Your task to perform on an android device: Open CNN.com Image 0: 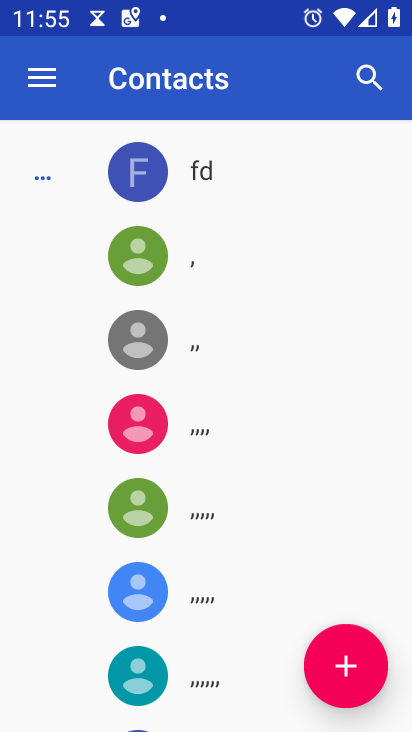
Step 0: press home button
Your task to perform on an android device: Open CNN.com Image 1: 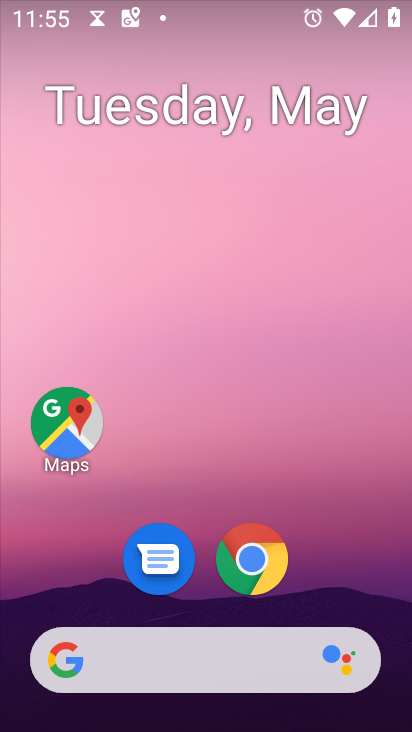
Step 1: click (261, 560)
Your task to perform on an android device: Open CNN.com Image 2: 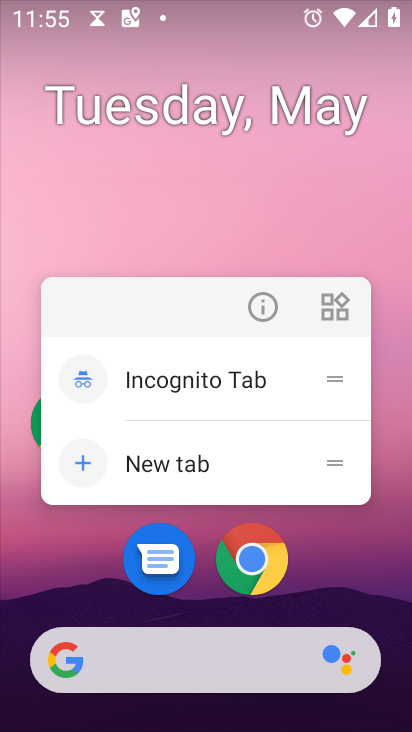
Step 2: click (261, 559)
Your task to perform on an android device: Open CNN.com Image 3: 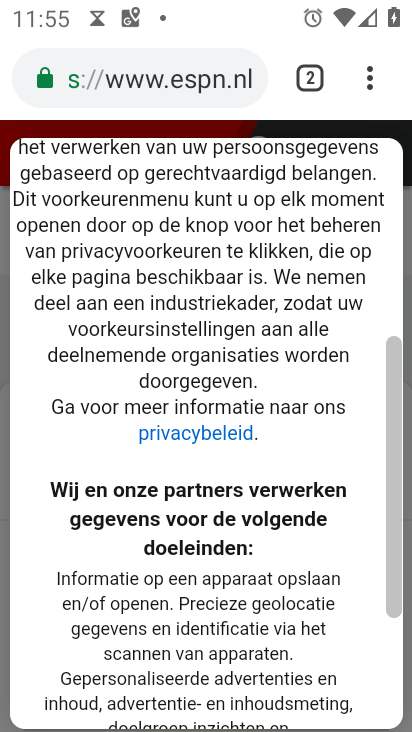
Step 3: click (191, 89)
Your task to perform on an android device: Open CNN.com Image 4: 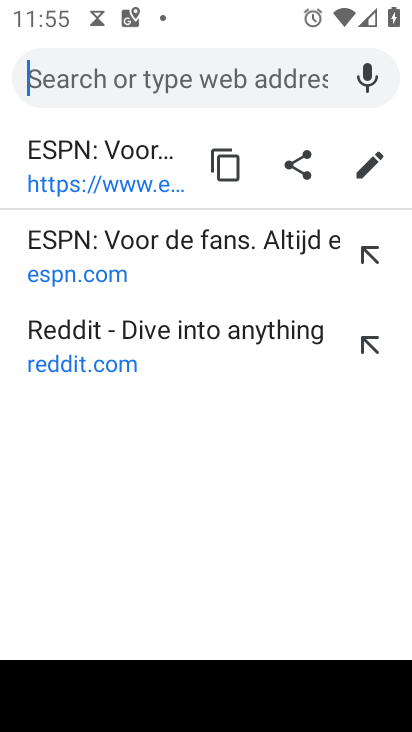
Step 4: type "cnn"
Your task to perform on an android device: Open CNN.com Image 5: 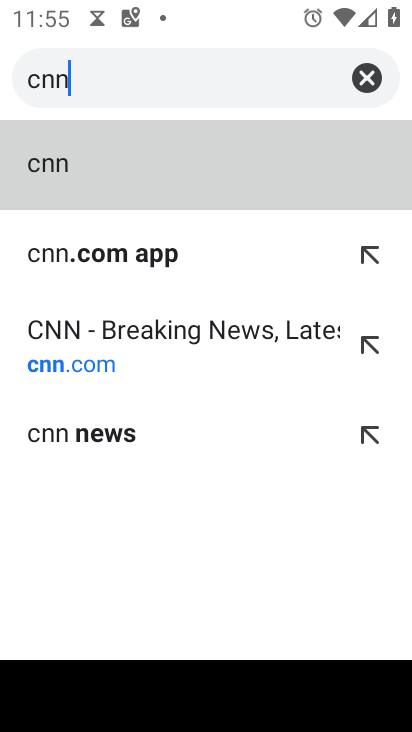
Step 5: click (108, 263)
Your task to perform on an android device: Open CNN.com Image 6: 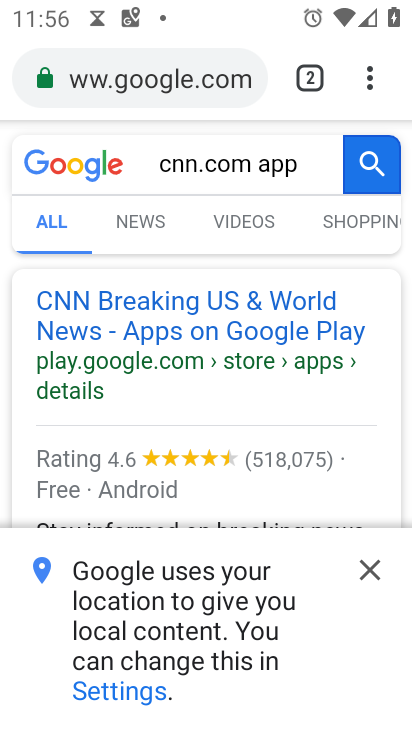
Step 6: click (369, 576)
Your task to perform on an android device: Open CNN.com Image 7: 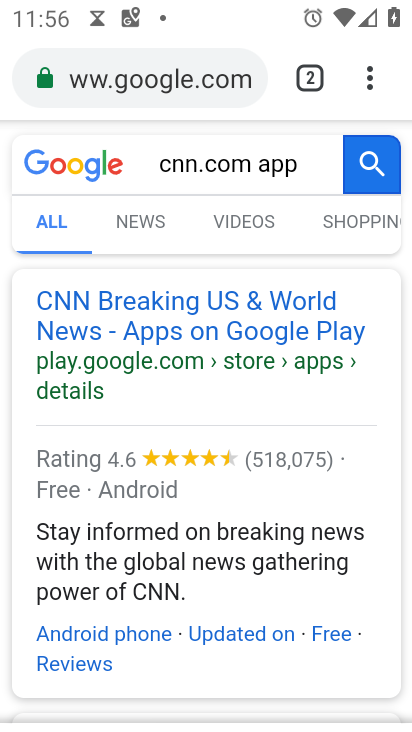
Step 7: click (103, 314)
Your task to perform on an android device: Open CNN.com Image 8: 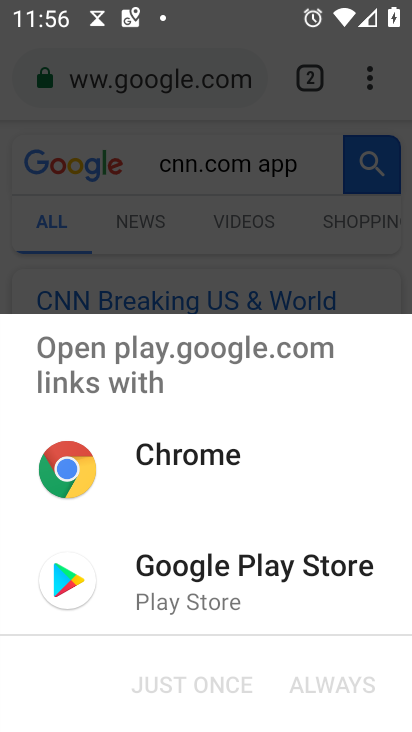
Step 8: click (155, 557)
Your task to perform on an android device: Open CNN.com Image 9: 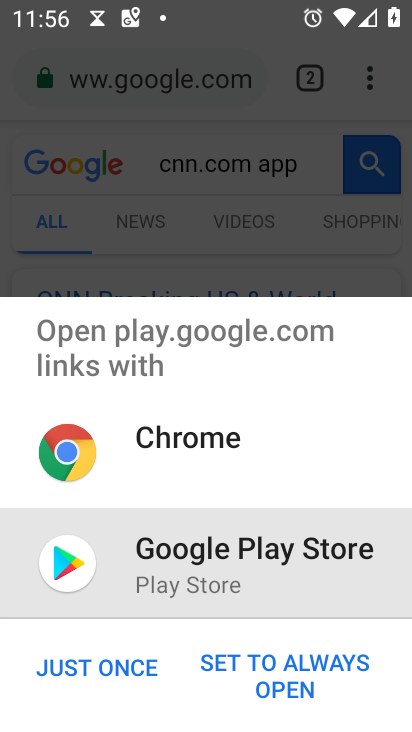
Step 9: click (53, 567)
Your task to perform on an android device: Open CNN.com Image 10: 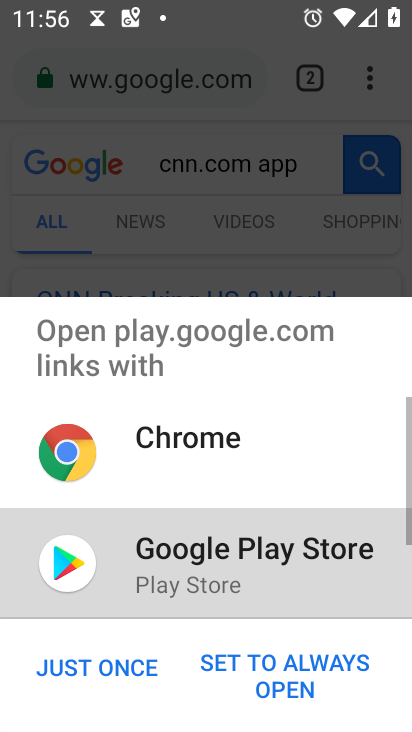
Step 10: click (78, 669)
Your task to perform on an android device: Open CNN.com Image 11: 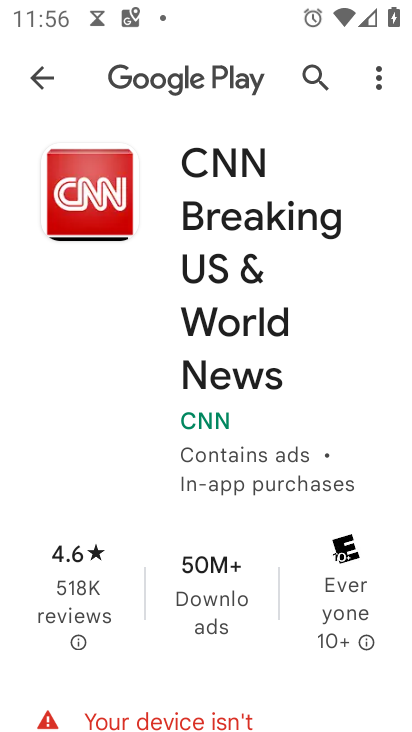
Step 11: task complete